Your task to perform on an android device: Is it going to rain today? Image 0: 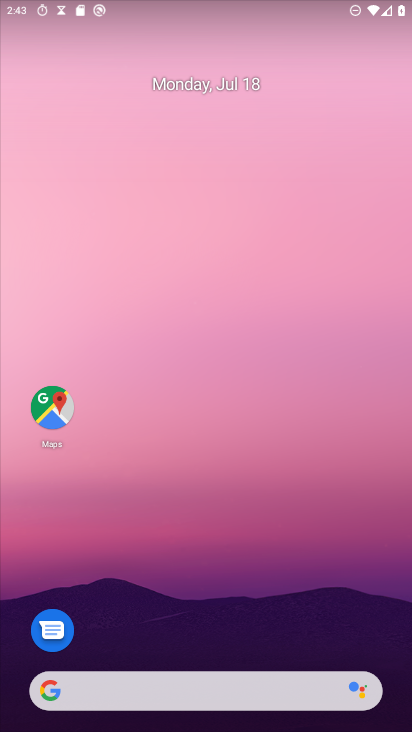
Step 0: drag from (263, 710) to (292, 63)
Your task to perform on an android device: Is it going to rain today? Image 1: 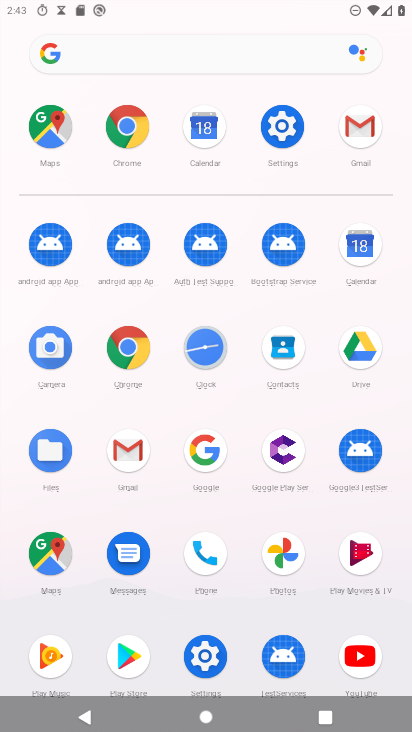
Step 1: click (133, 359)
Your task to perform on an android device: Is it going to rain today? Image 2: 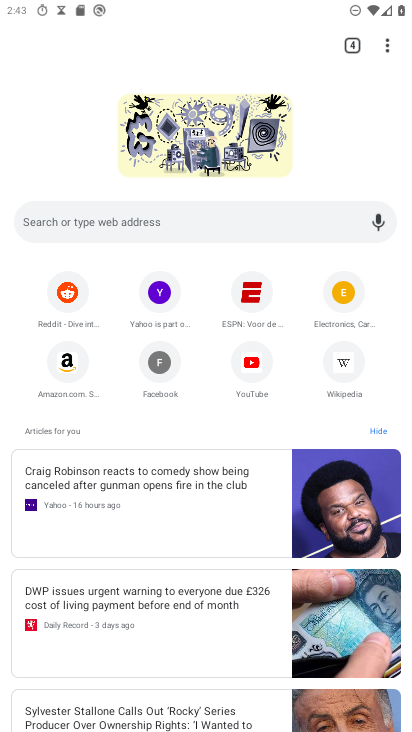
Step 2: click (211, 216)
Your task to perform on an android device: Is it going to rain today? Image 3: 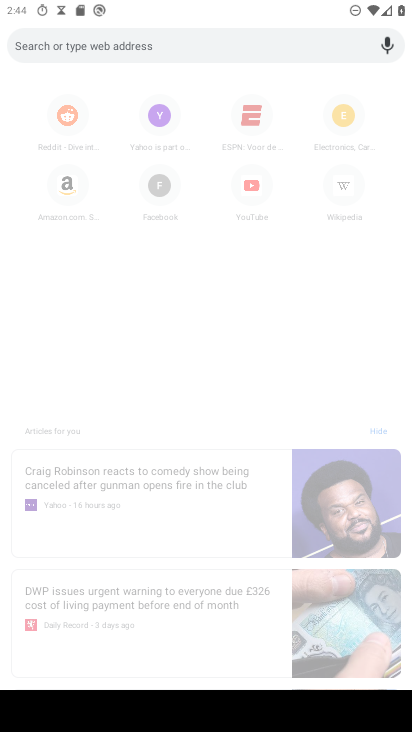
Step 3: type "going to rain today"
Your task to perform on an android device: Is it going to rain today? Image 4: 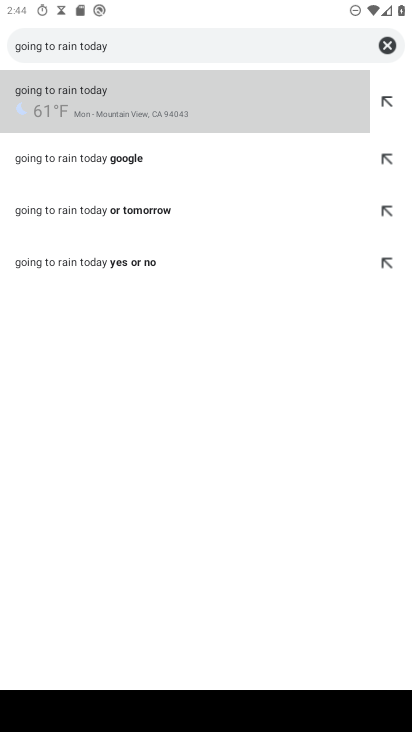
Step 4: click (277, 110)
Your task to perform on an android device: Is it going to rain today? Image 5: 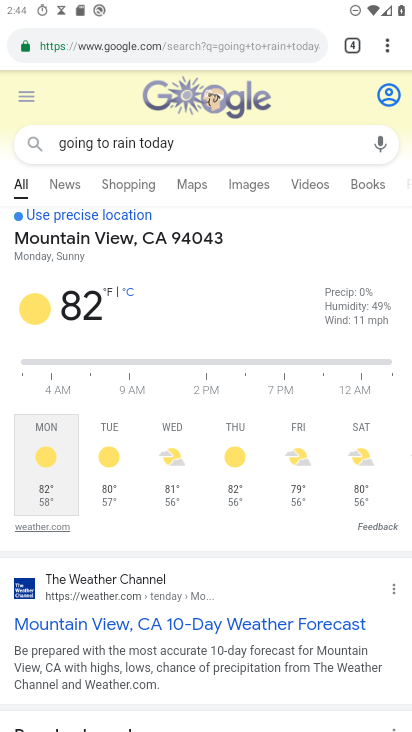
Step 5: task complete